Your task to perform on an android device: Check the news Image 0: 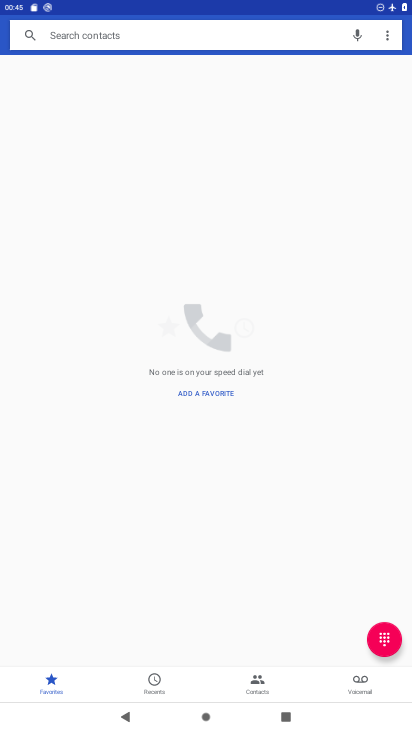
Step 0: press home button
Your task to perform on an android device: Check the news Image 1: 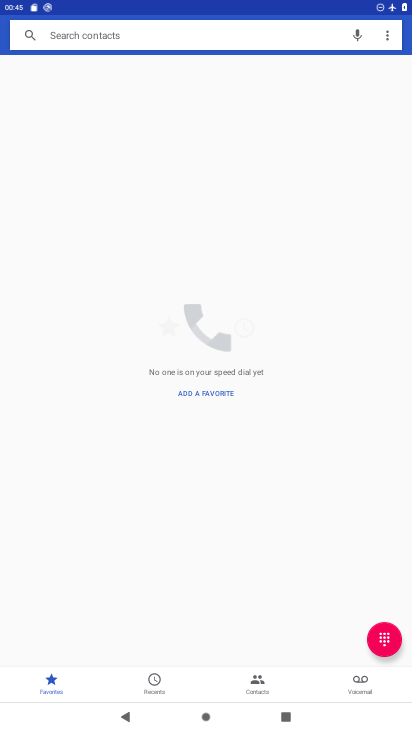
Step 1: drag from (189, 597) to (285, 200)
Your task to perform on an android device: Check the news Image 2: 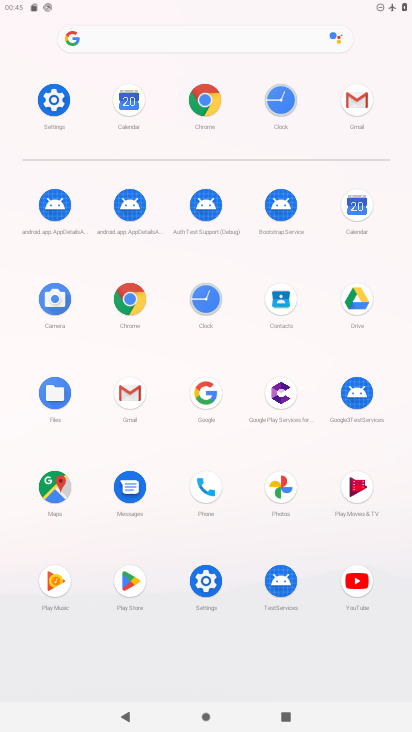
Step 2: click (161, 47)
Your task to perform on an android device: Check the news Image 3: 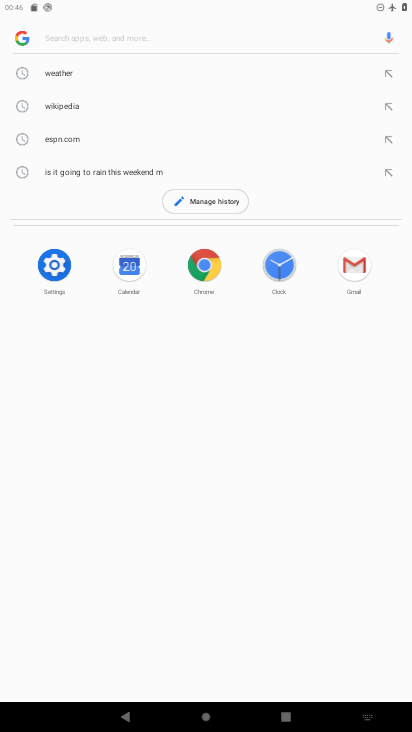
Step 3: type "news"
Your task to perform on an android device: Check the news Image 4: 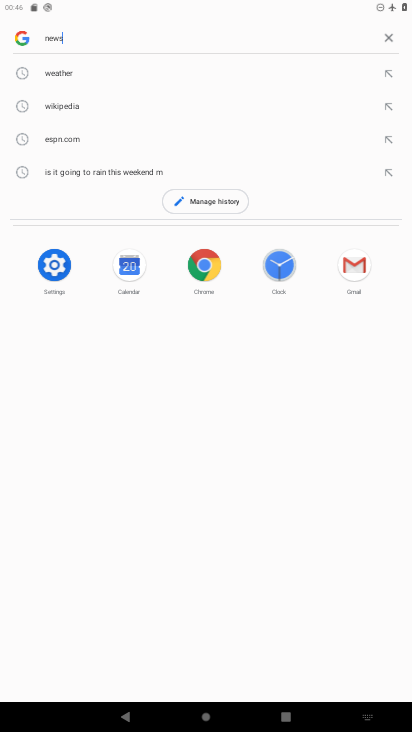
Step 4: type ""
Your task to perform on an android device: Check the news Image 5: 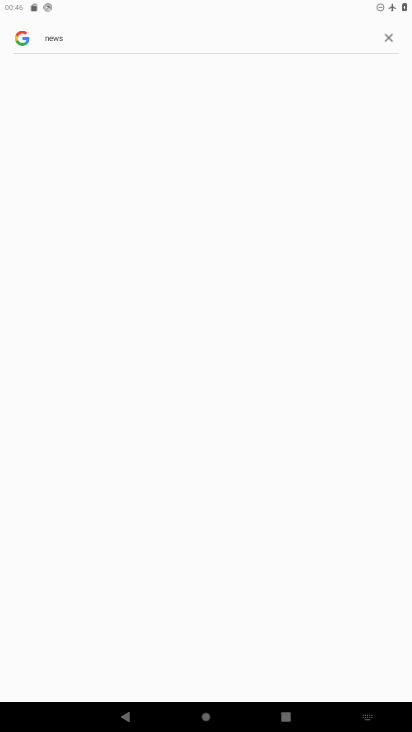
Step 5: click (352, 269)
Your task to perform on an android device: Check the news Image 6: 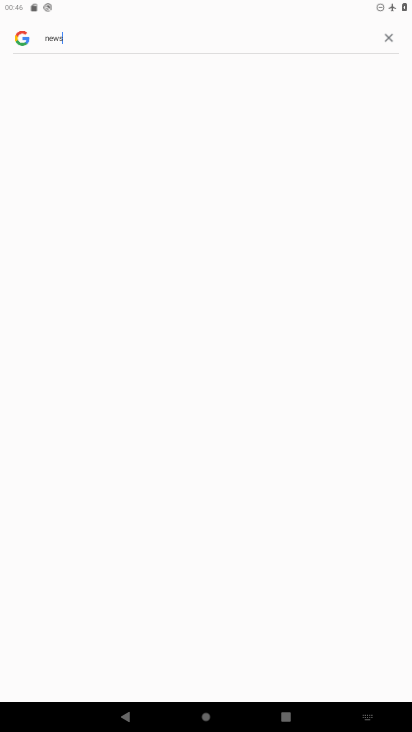
Step 6: click (124, 123)
Your task to perform on an android device: Check the news Image 7: 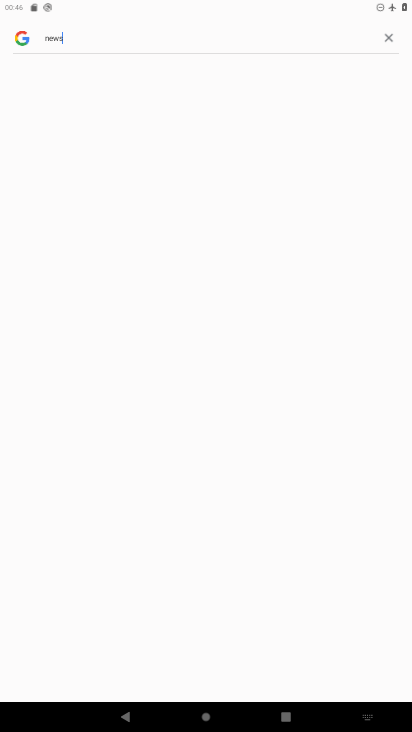
Step 7: task complete